Your task to perform on an android device: toggle pop-ups in chrome Image 0: 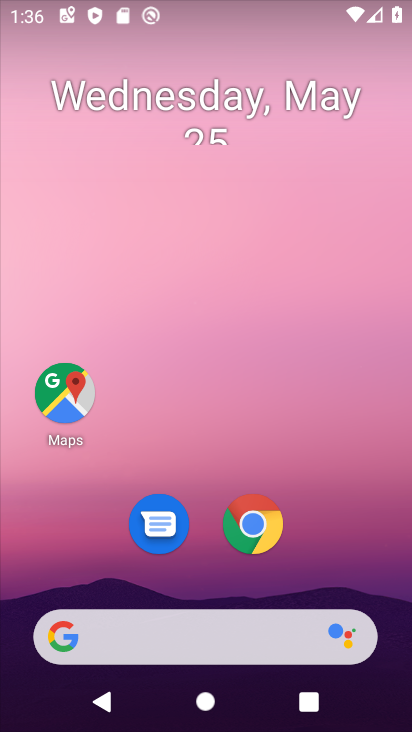
Step 0: click (258, 518)
Your task to perform on an android device: toggle pop-ups in chrome Image 1: 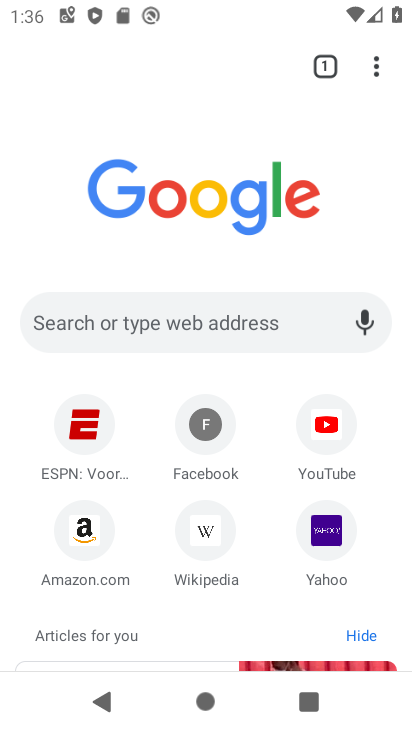
Step 1: click (377, 63)
Your task to perform on an android device: toggle pop-ups in chrome Image 2: 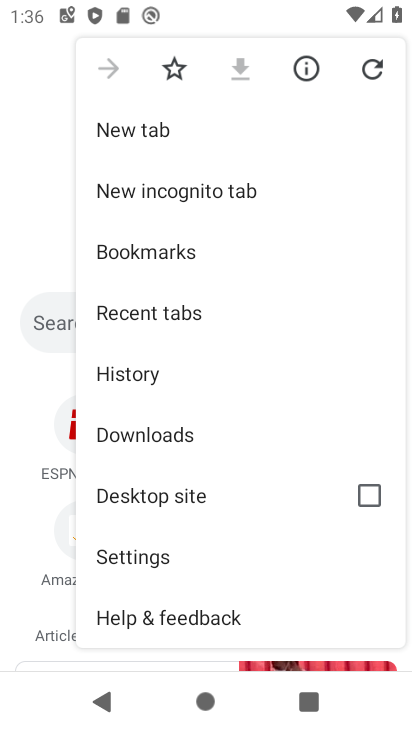
Step 2: click (214, 551)
Your task to perform on an android device: toggle pop-ups in chrome Image 3: 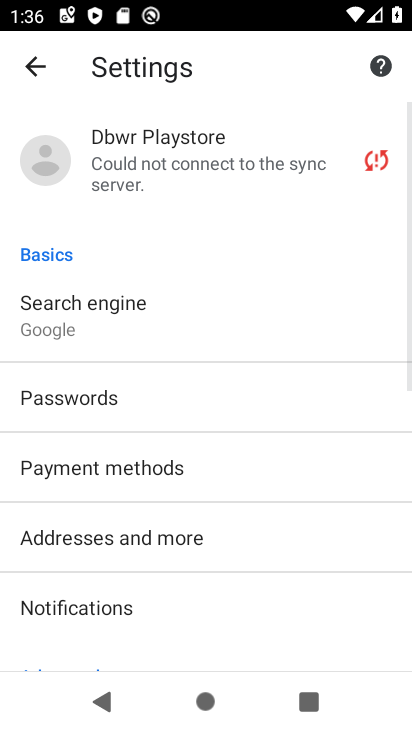
Step 3: drag from (220, 517) to (243, 207)
Your task to perform on an android device: toggle pop-ups in chrome Image 4: 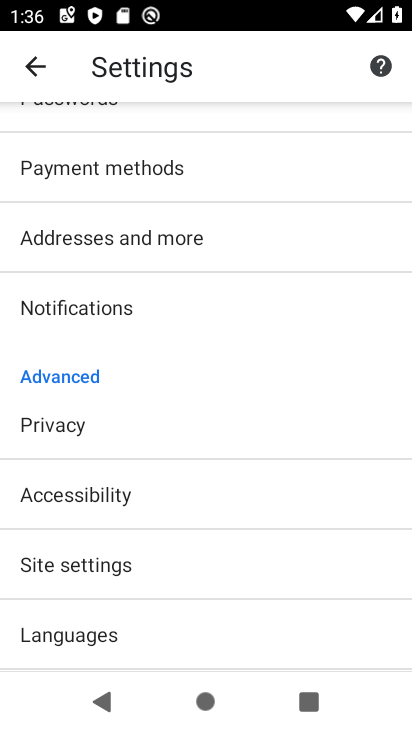
Step 4: click (203, 555)
Your task to perform on an android device: toggle pop-ups in chrome Image 5: 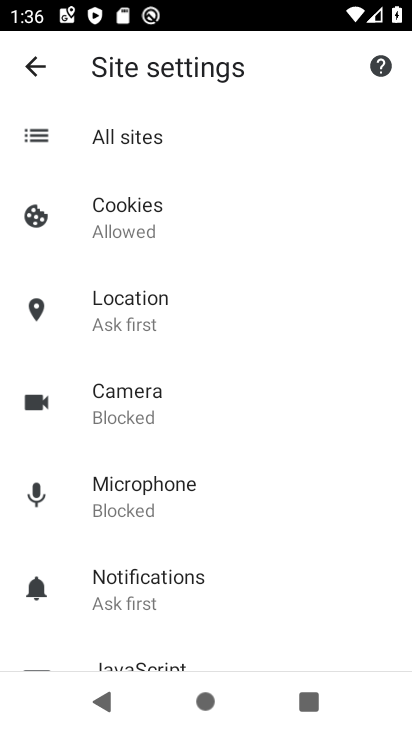
Step 5: drag from (227, 485) to (224, 225)
Your task to perform on an android device: toggle pop-ups in chrome Image 6: 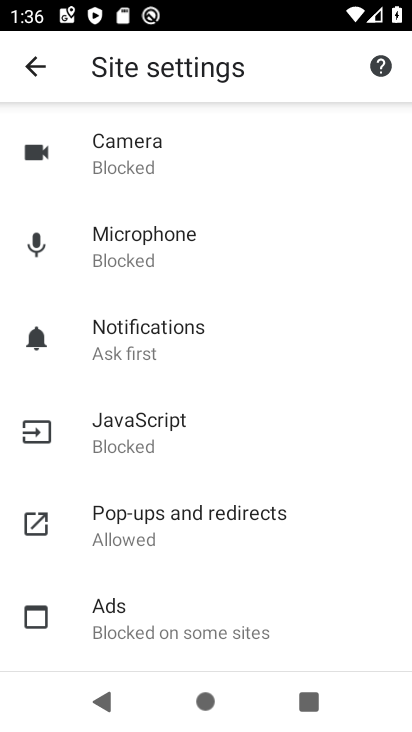
Step 6: click (200, 528)
Your task to perform on an android device: toggle pop-ups in chrome Image 7: 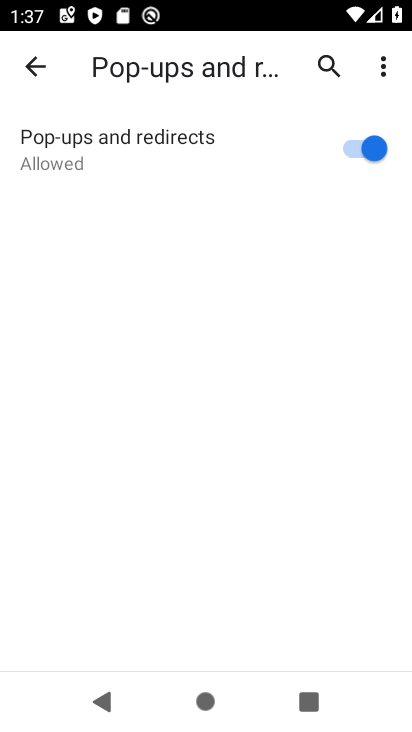
Step 7: click (362, 139)
Your task to perform on an android device: toggle pop-ups in chrome Image 8: 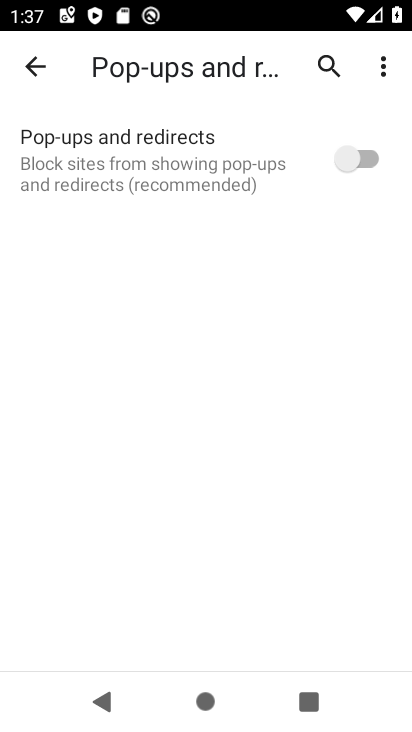
Step 8: task complete